Your task to perform on an android device: move a message to another label in the gmail app Image 0: 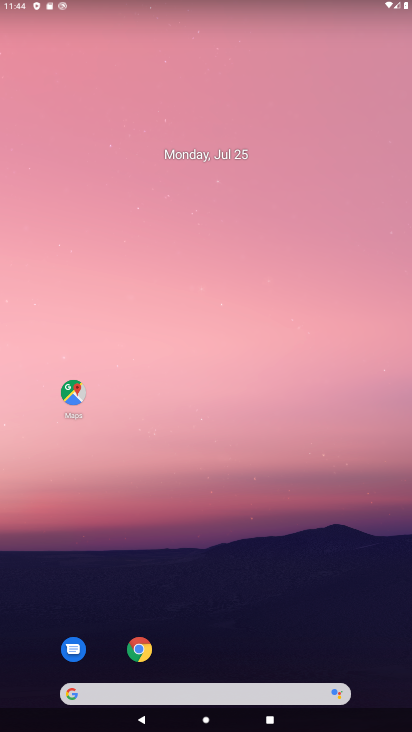
Step 0: drag from (210, 660) to (152, 32)
Your task to perform on an android device: move a message to another label in the gmail app Image 1: 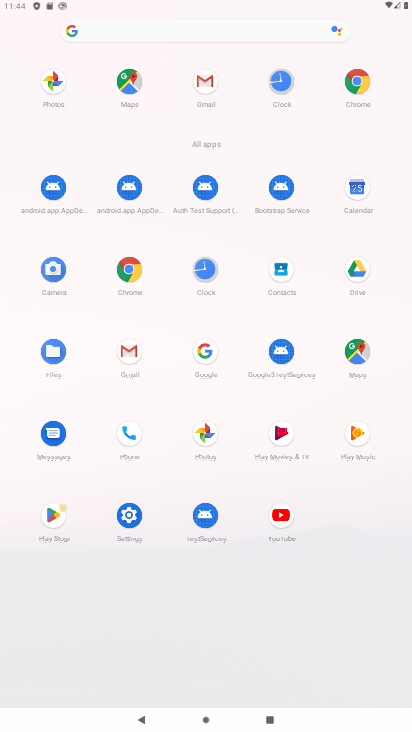
Step 1: click (128, 365)
Your task to perform on an android device: move a message to another label in the gmail app Image 2: 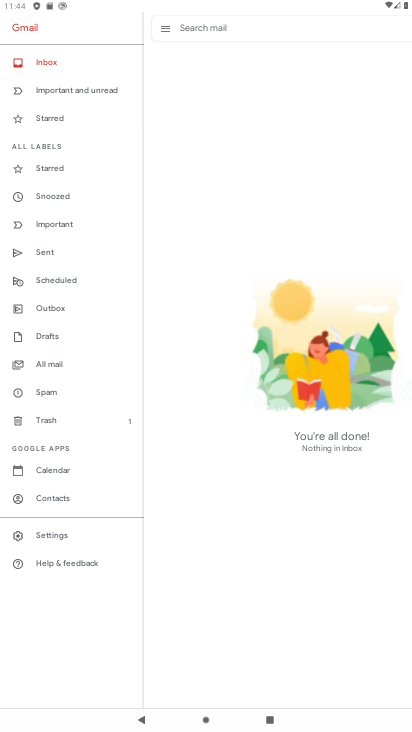
Step 2: click (35, 60)
Your task to perform on an android device: move a message to another label in the gmail app Image 3: 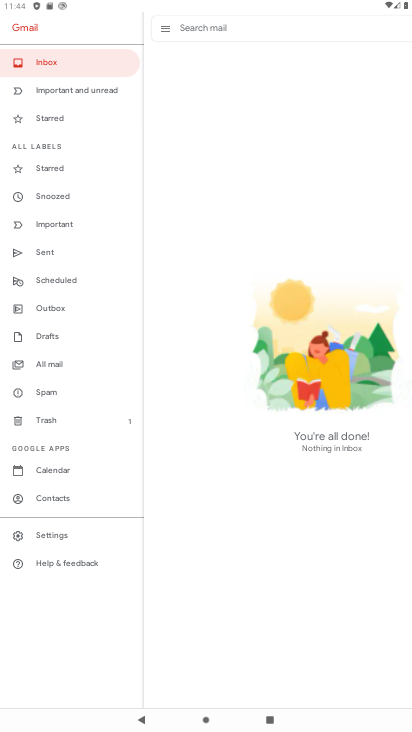
Step 3: task complete